Your task to perform on an android device: turn off wifi Image 0: 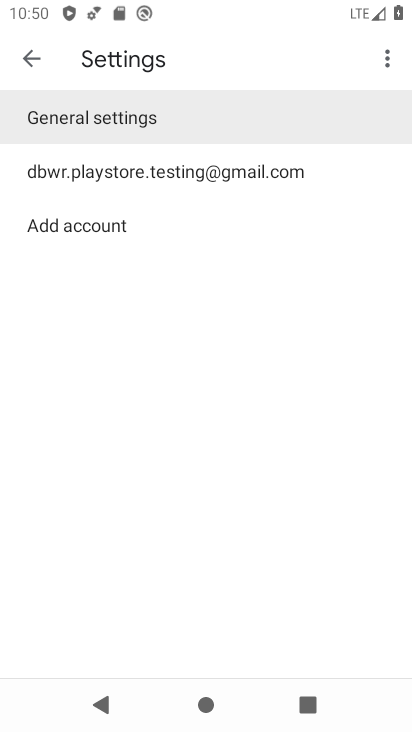
Step 0: press home button
Your task to perform on an android device: turn off wifi Image 1: 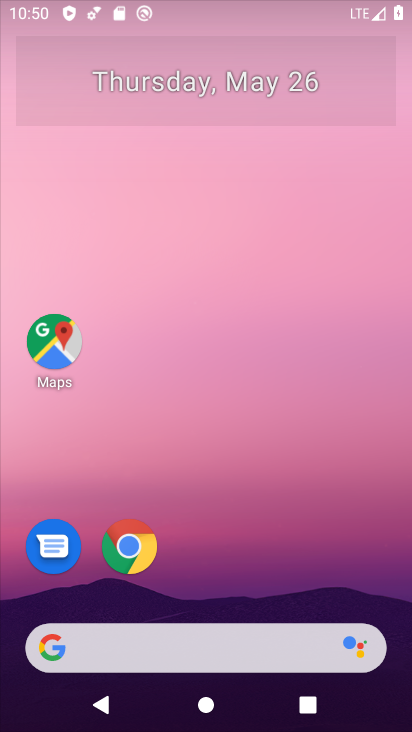
Step 1: drag from (235, 570) to (285, 72)
Your task to perform on an android device: turn off wifi Image 2: 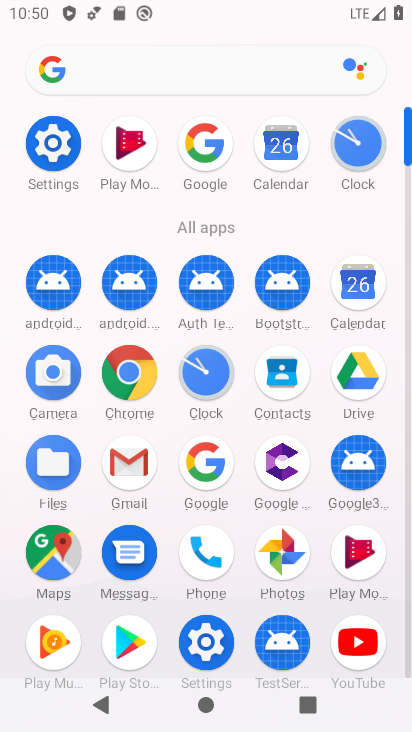
Step 2: click (48, 140)
Your task to perform on an android device: turn off wifi Image 3: 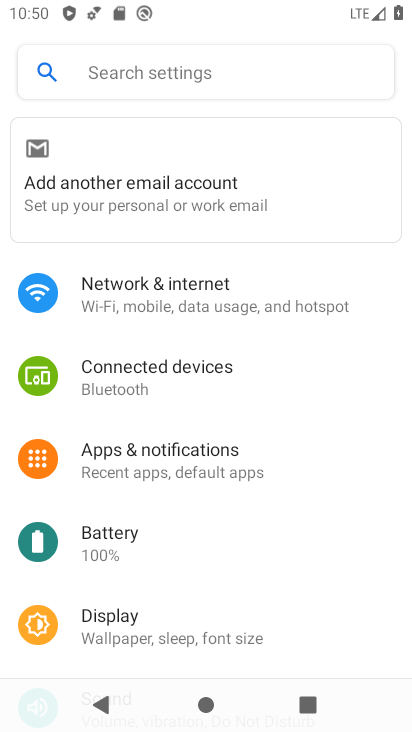
Step 3: click (184, 320)
Your task to perform on an android device: turn off wifi Image 4: 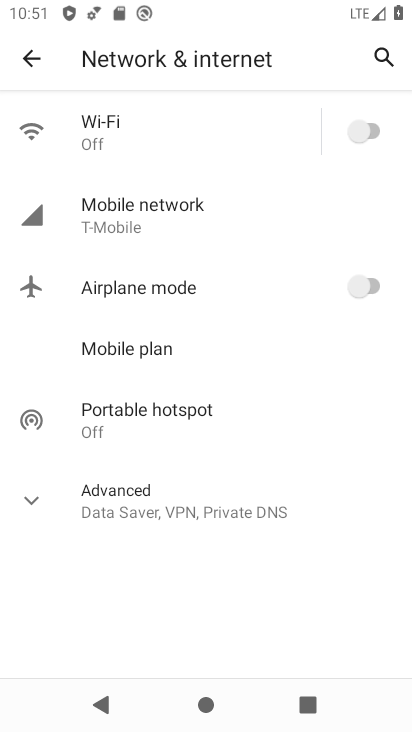
Step 4: task complete